Your task to perform on an android device: Go to Wikipedia Image 0: 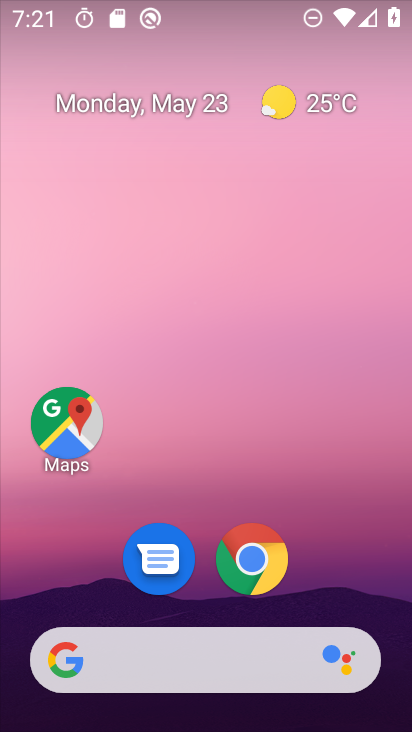
Step 0: drag from (389, 640) to (304, 34)
Your task to perform on an android device: Go to Wikipedia Image 1: 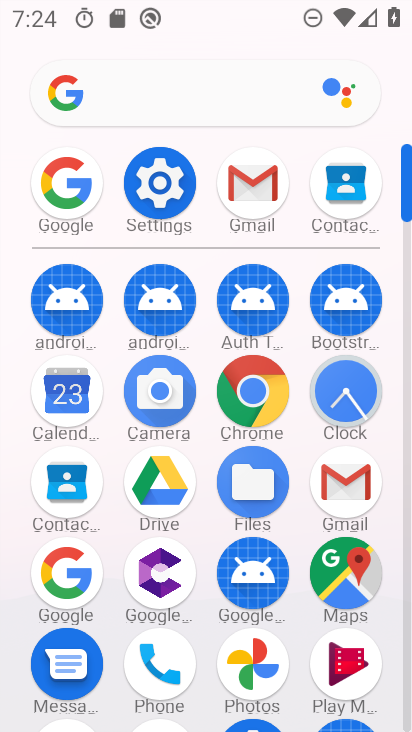
Step 1: click (281, 402)
Your task to perform on an android device: Go to Wikipedia Image 2: 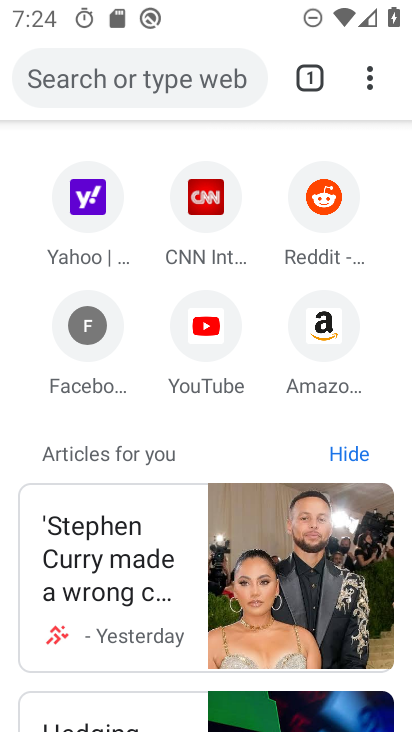
Step 2: click (136, 91)
Your task to perform on an android device: Go to Wikipedia Image 3: 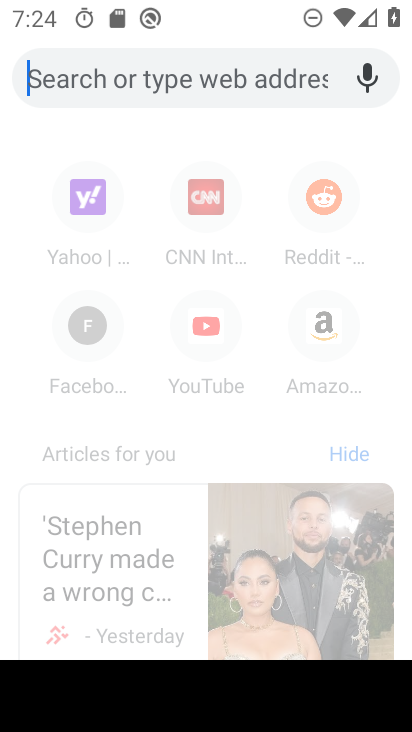
Step 3: type "wikipedia"
Your task to perform on an android device: Go to Wikipedia Image 4: 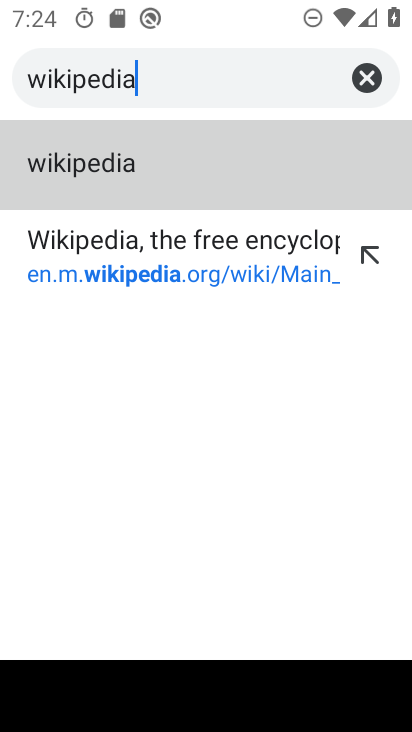
Step 4: click (177, 182)
Your task to perform on an android device: Go to Wikipedia Image 5: 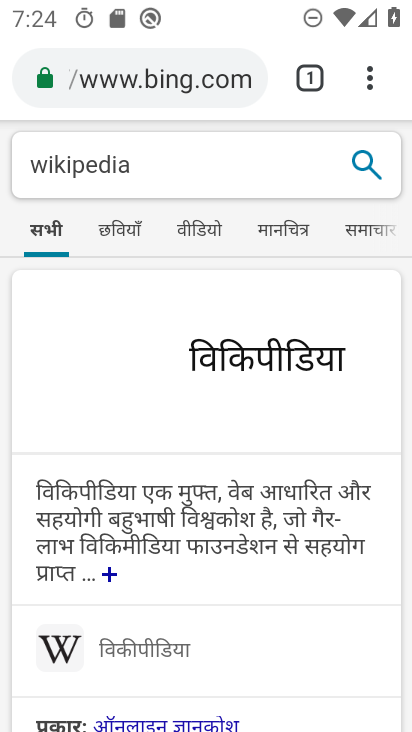
Step 5: task complete